Your task to perform on an android device: change timer sound Image 0: 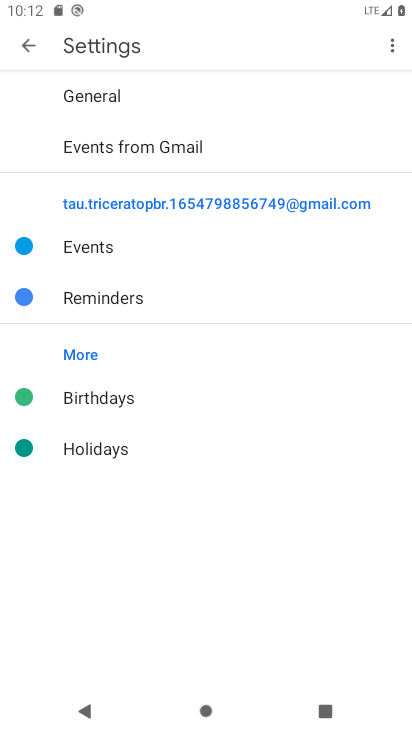
Step 0: press home button
Your task to perform on an android device: change timer sound Image 1: 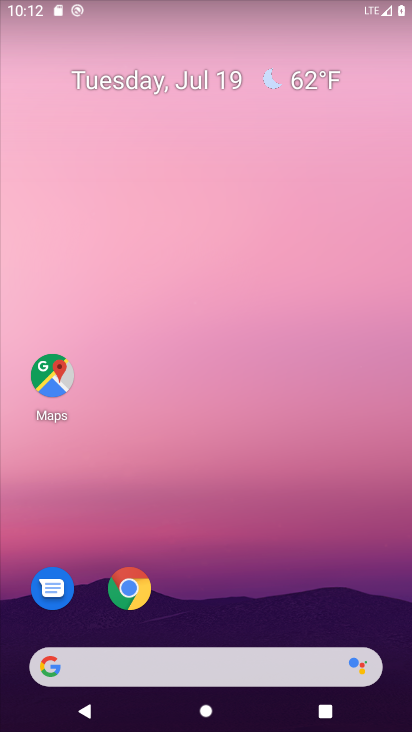
Step 1: drag from (180, 599) to (137, 43)
Your task to perform on an android device: change timer sound Image 2: 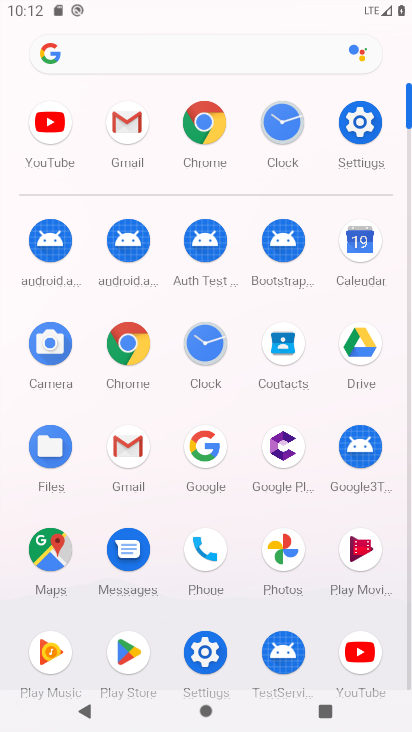
Step 2: click (200, 354)
Your task to perform on an android device: change timer sound Image 3: 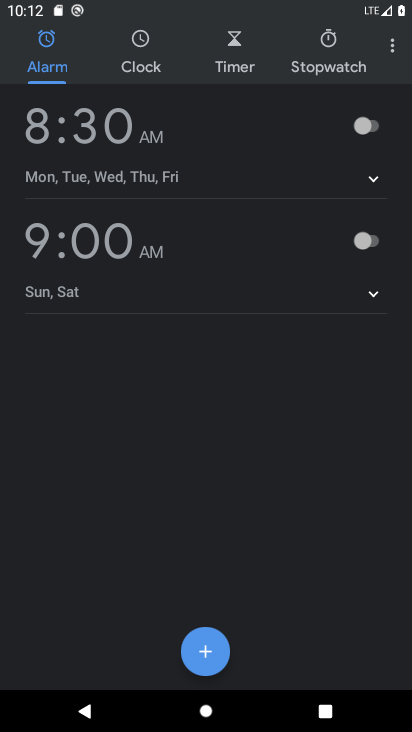
Step 3: click (390, 43)
Your task to perform on an android device: change timer sound Image 4: 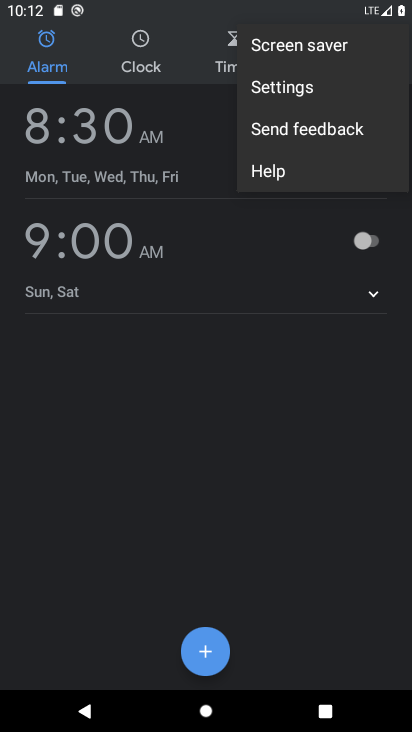
Step 4: click (298, 88)
Your task to perform on an android device: change timer sound Image 5: 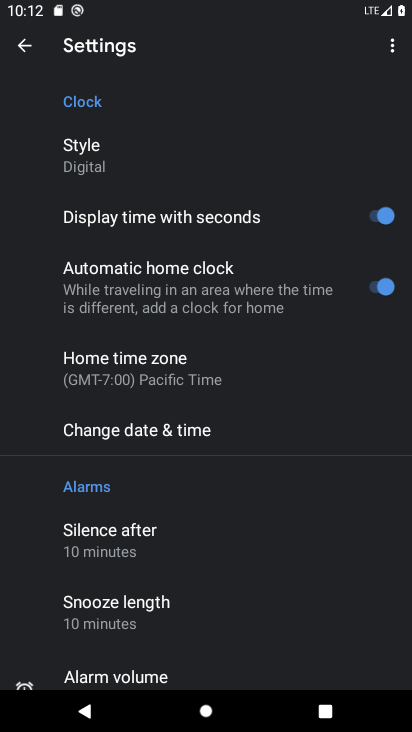
Step 5: drag from (161, 541) to (179, 152)
Your task to perform on an android device: change timer sound Image 6: 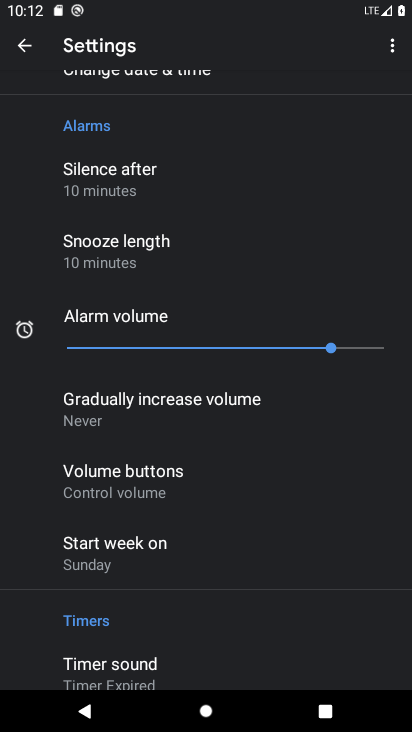
Step 6: click (119, 661)
Your task to perform on an android device: change timer sound Image 7: 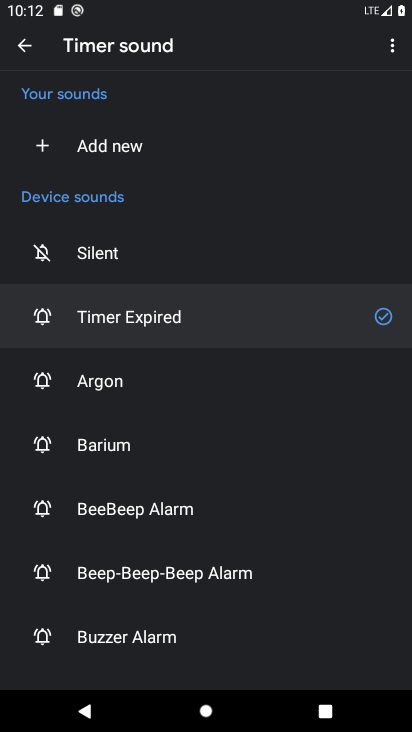
Step 7: click (77, 386)
Your task to perform on an android device: change timer sound Image 8: 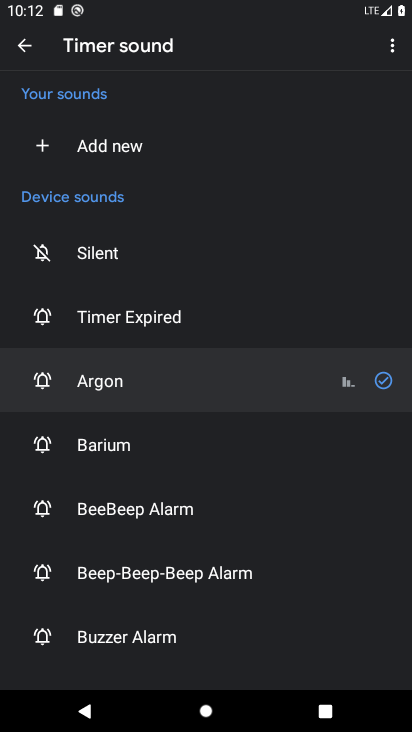
Step 8: task complete